Your task to perform on an android device: Open Amazon Image 0: 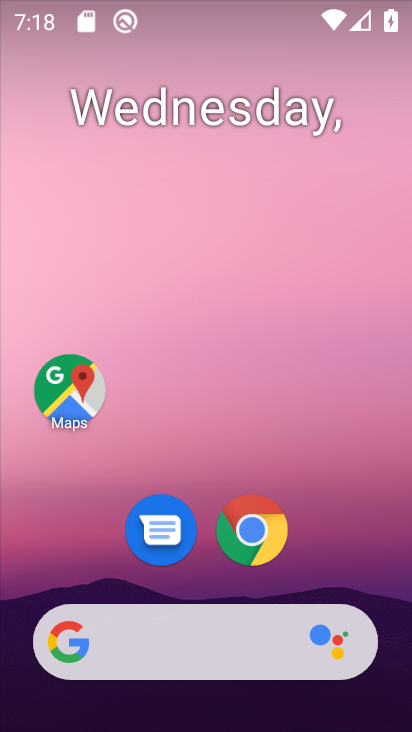
Step 0: drag from (392, 641) to (349, 47)
Your task to perform on an android device: Open Amazon Image 1: 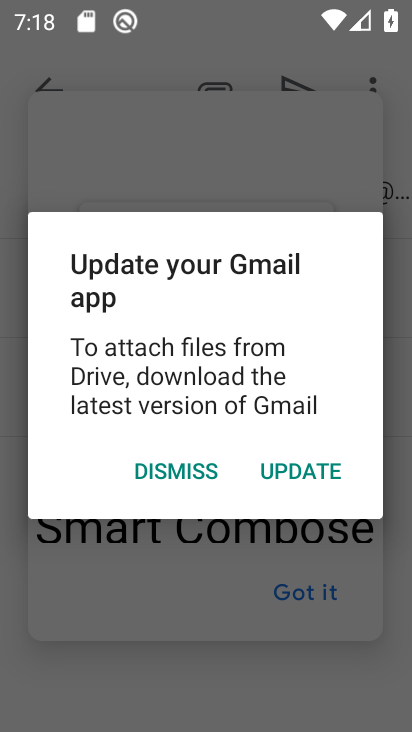
Step 1: press home button
Your task to perform on an android device: Open Amazon Image 2: 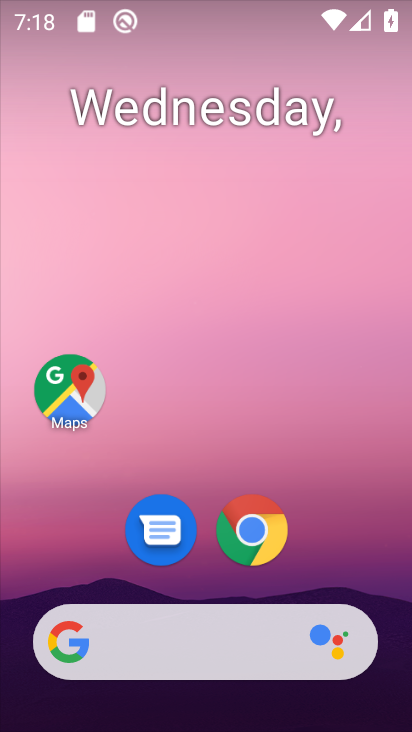
Step 2: drag from (391, 650) to (301, 12)
Your task to perform on an android device: Open Amazon Image 3: 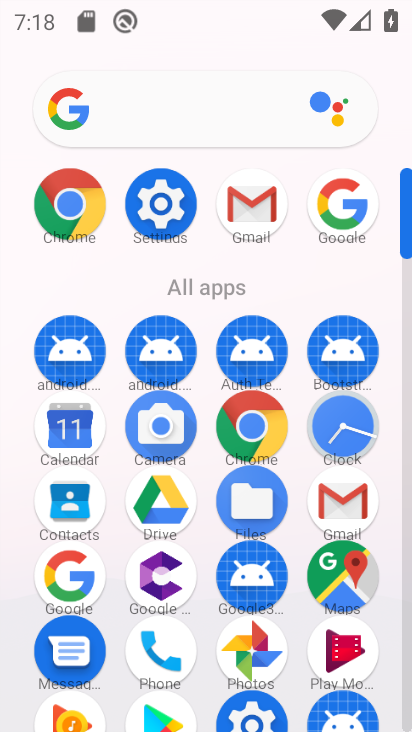
Step 3: click (248, 424)
Your task to perform on an android device: Open Amazon Image 4: 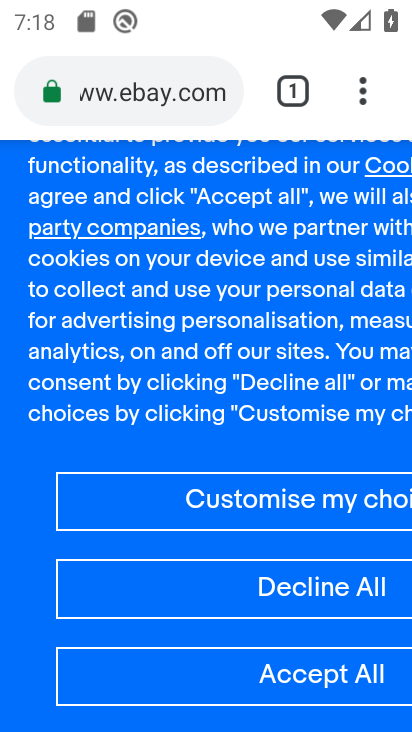
Step 4: press back button
Your task to perform on an android device: Open Amazon Image 5: 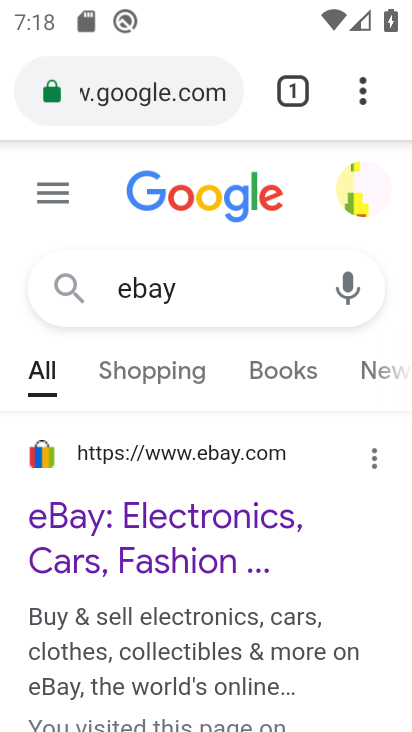
Step 5: press back button
Your task to perform on an android device: Open Amazon Image 6: 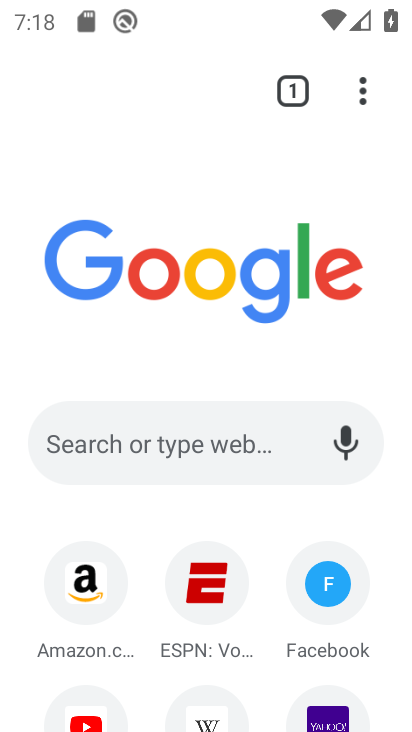
Step 6: click (81, 589)
Your task to perform on an android device: Open Amazon Image 7: 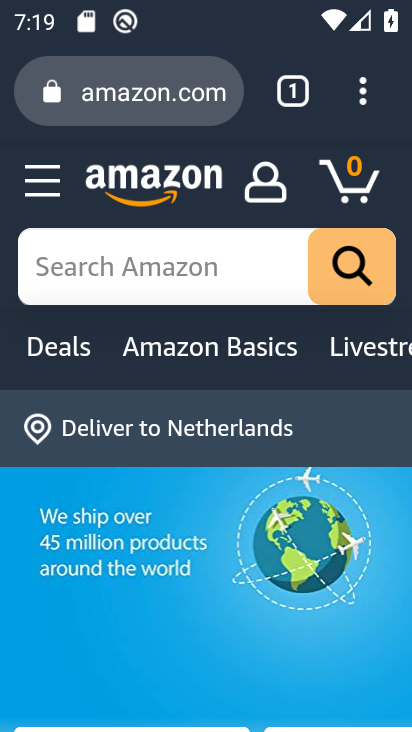
Step 7: task complete